Your task to perform on an android device: toggle data saver in the chrome app Image 0: 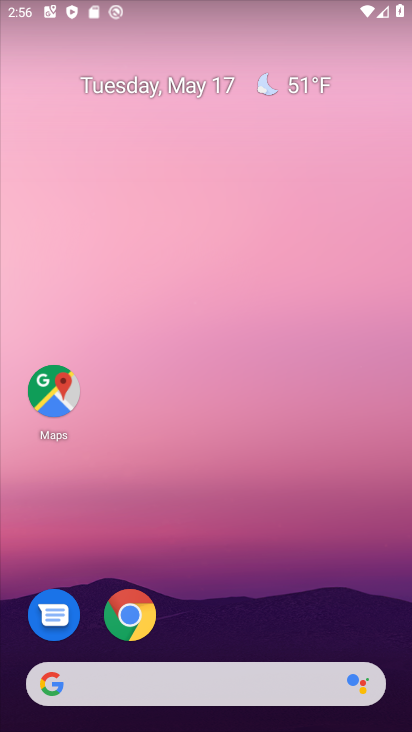
Step 0: click (129, 608)
Your task to perform on an android device: toggle data saver in the chrome app Image 1: 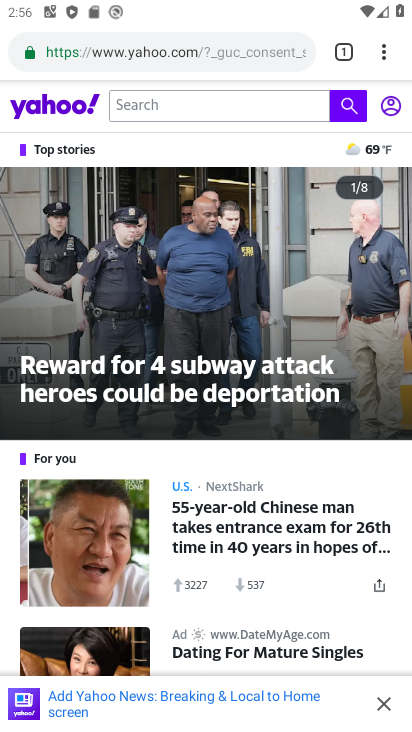
Step 1: click (386, 54)
Your task to perform on an android device: toggle data saver in the chrome app Image 2: 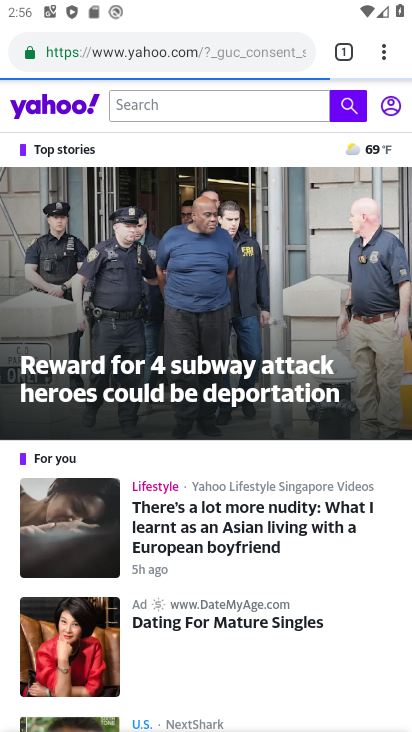
Step 2: click (383, 49)
Your task to perform on an android device: toggle data saver in the chrome app Image 3: 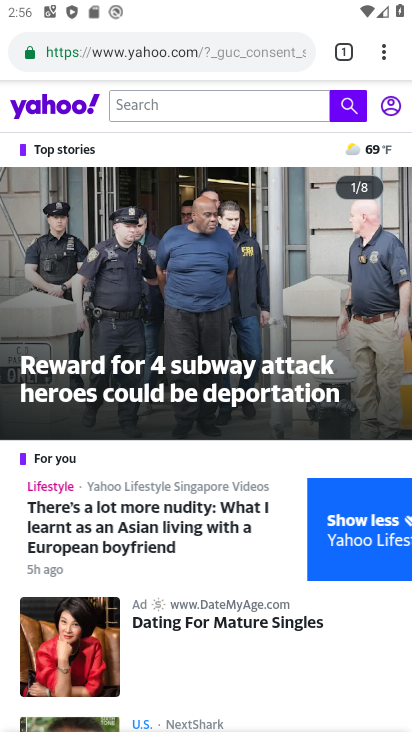
Step 3: click (383, 49)
Your task to perform on an android device: toggle data saver in the chrome app Image 4: 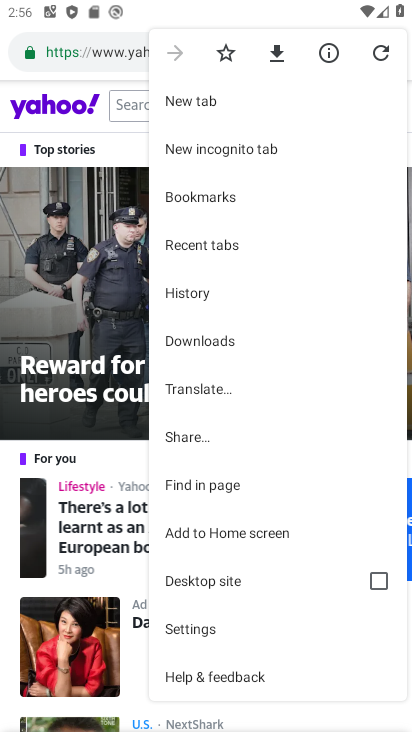
Step 4: click (212, 626)
Your task to perform on an android device: toggle data saver in the chrome app Image 5: 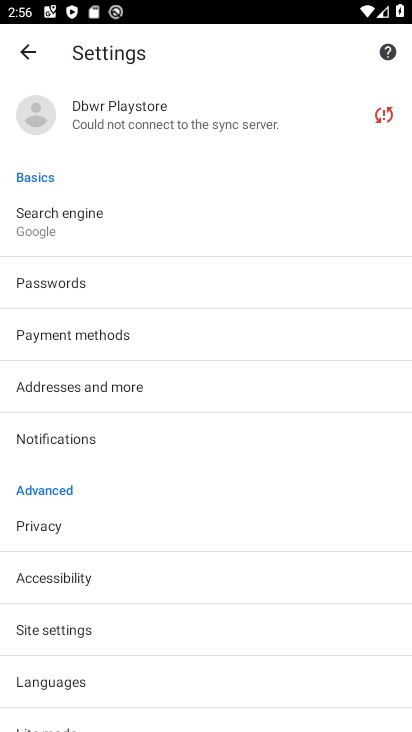
Step 5: drag from (107, 668) to (171, 296)
Your task to perform on an android device: toggle data saver in the chrome app Image 6: 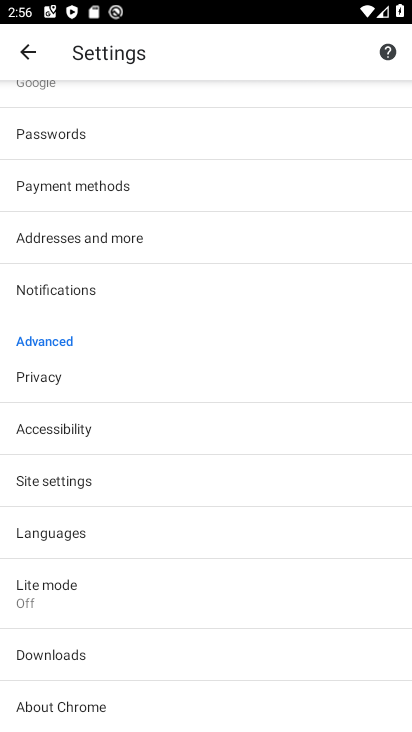
Step 6: click (73, 597)
Your task to perform on an android device: toggle data saver in the chrome app Image 7: 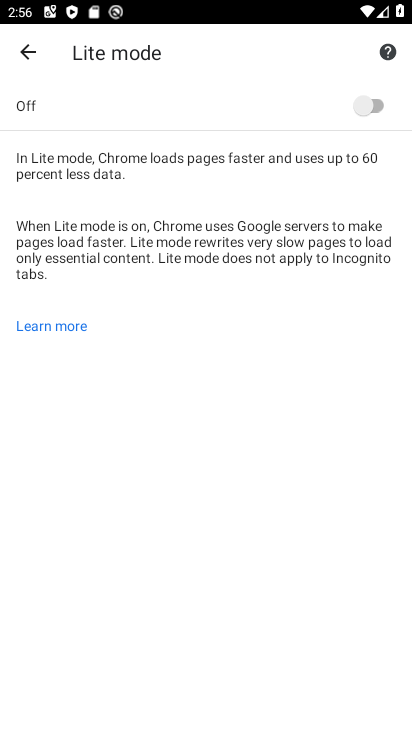
Step 7: click (371, 99)
Your task to perform on an android device: toggle data saver in the chrome app Image 8: 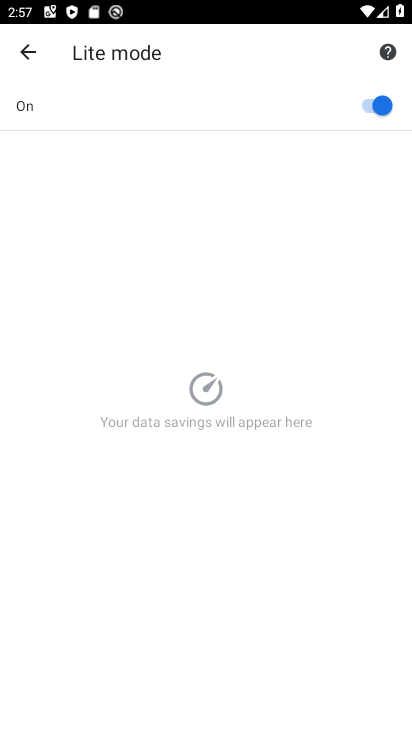
Step 8: task complete